Your task to perform on an android device: Go to settings Image 0: 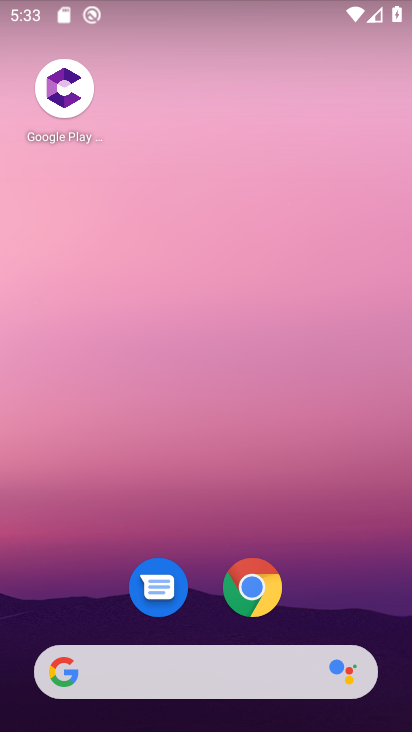
Step 0: drag from (347, 445) to (364, 2)
Your task to perform on an android device: Go to settings Image 1: 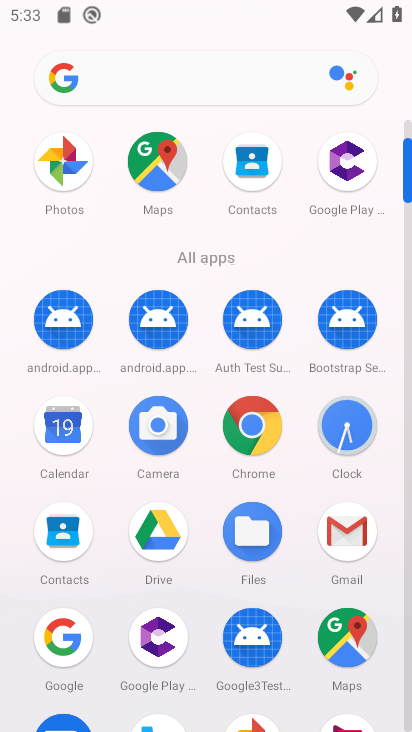
Step 1: drag from (317, 506) to (389, 131)
Your task to perform on an android device: Go to settings Image 2: 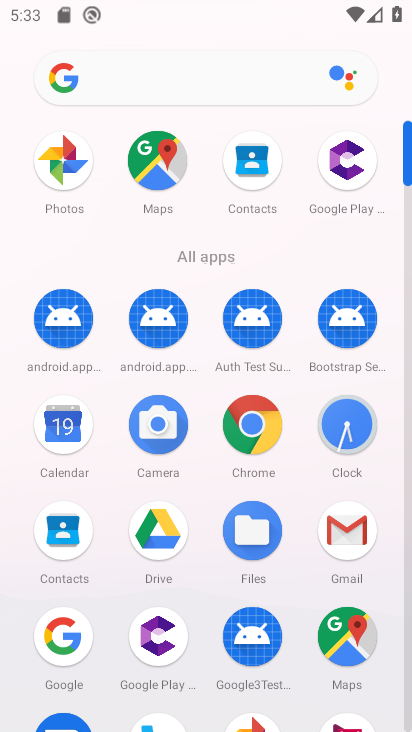
Step 2: drag from (304, 459) to (306, 249)
Your task to perform on an android device: Go to settings Image 3: 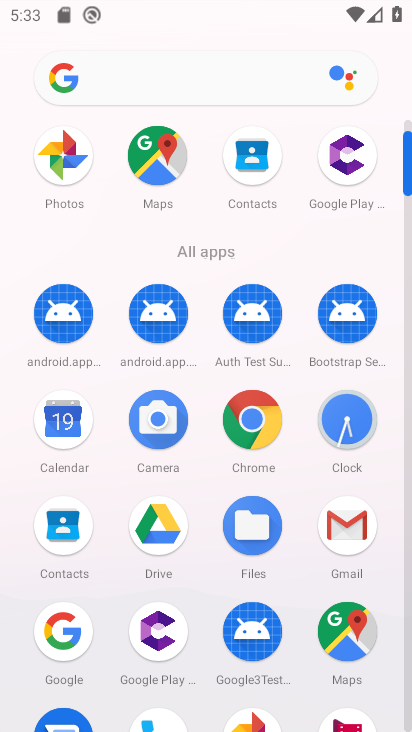
Step 3: drag from (288, 574) to (302, 217)
Your task to perform on an android device: Go to settings Image 4: 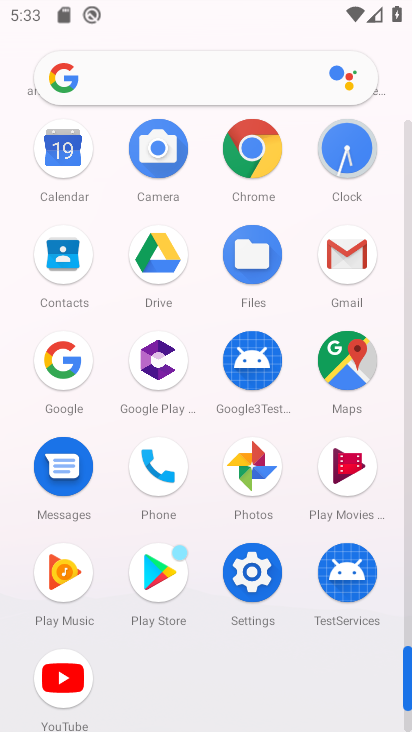
Step 4: drag from (297, 422) to (297, 218)
Your task to perform on an android device: Go to settings Image 5: 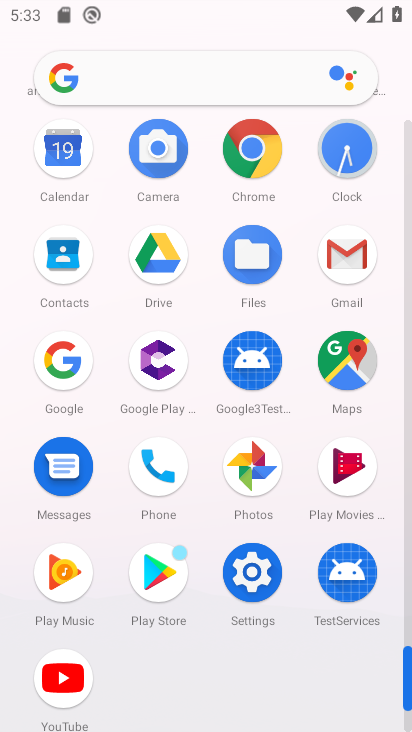
Step 5: click (248, 562)
Your task to perform on an android device: Go to settings Image 6: 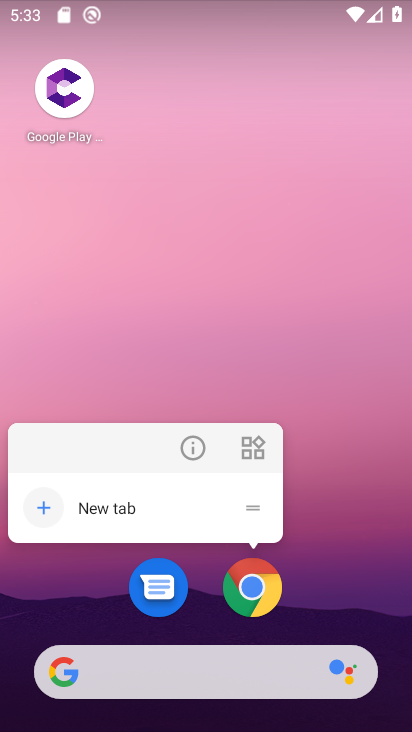
Step 6: click (376, 585)
Your task to perform on an android device: Go to settings Image 7: 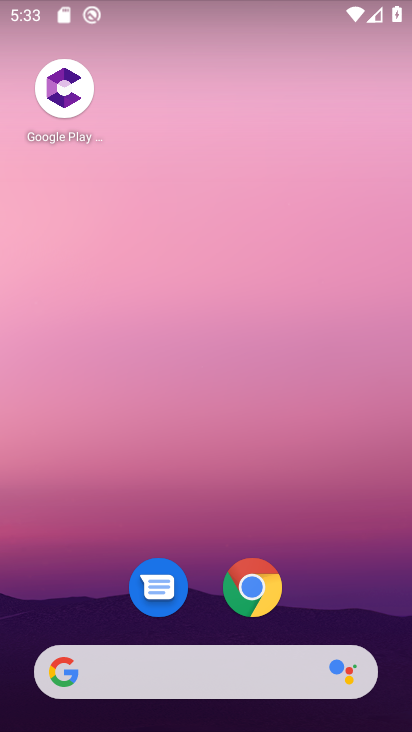
Step 7: drag from (372, 585) to (409, 86)
Your task to perform on an android device: Go to settings Image 8: 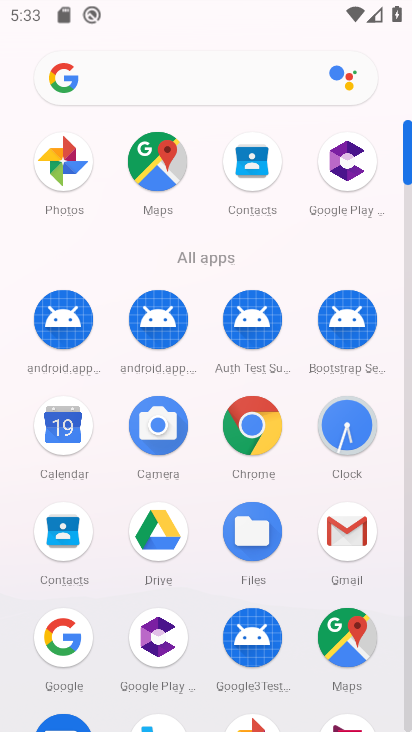
Step 8: drag from (289, 636) to (294, 326)
Your task to perform on an android device: Go to settings Image 9: 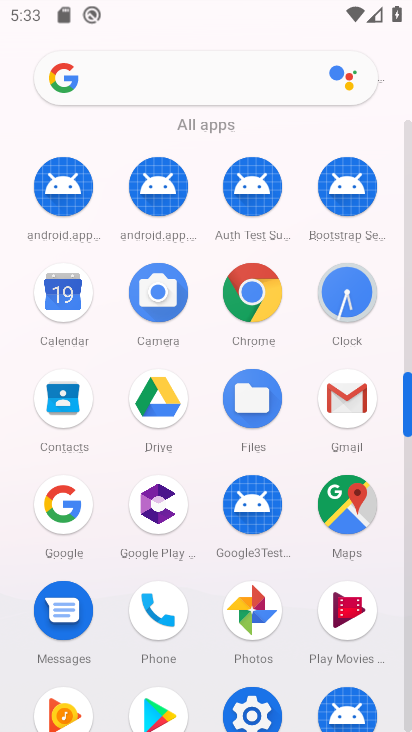
Step 9: click (241, 702)
Your task to perform on an android device: Go to settings Image 10: 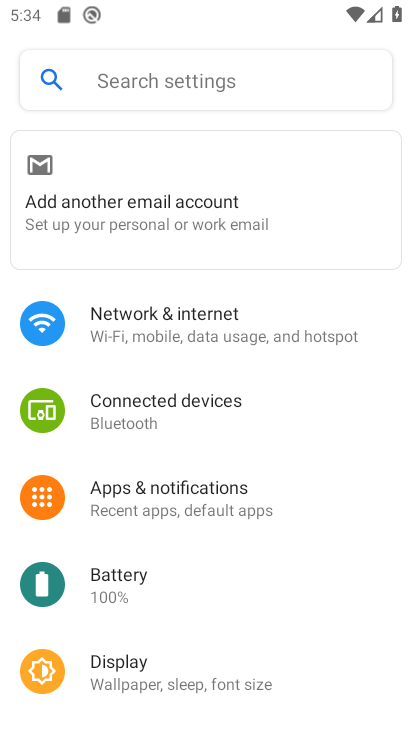
Step 10: task complete